Your task to perform on an android device: turn smart compose on in the gmail app Image 0: 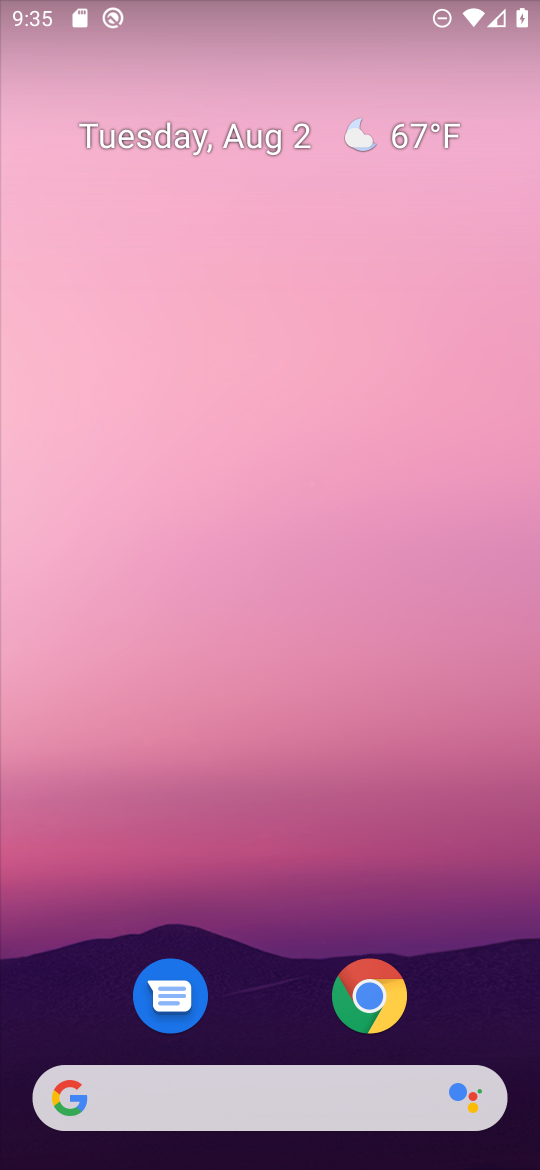
Step 0: press home button
Your task to perform on an android device: turn smart compose on in the gmail app Image 1: 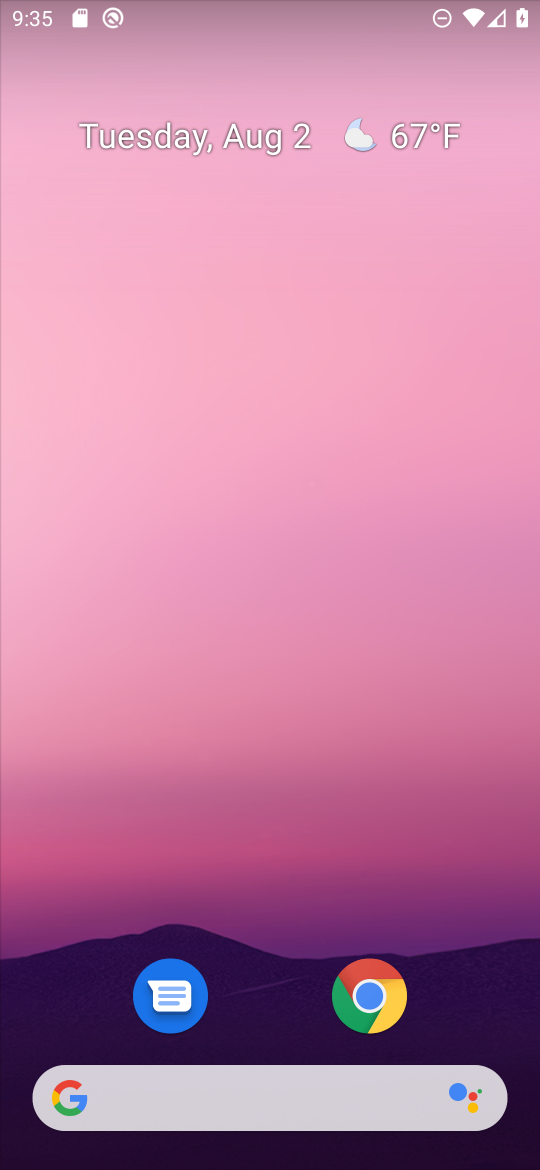
Step 1: drag from (287, 966) to (391, 25)
Your task to perform on an android device: turn smart compose on in the gmail app Image 2: 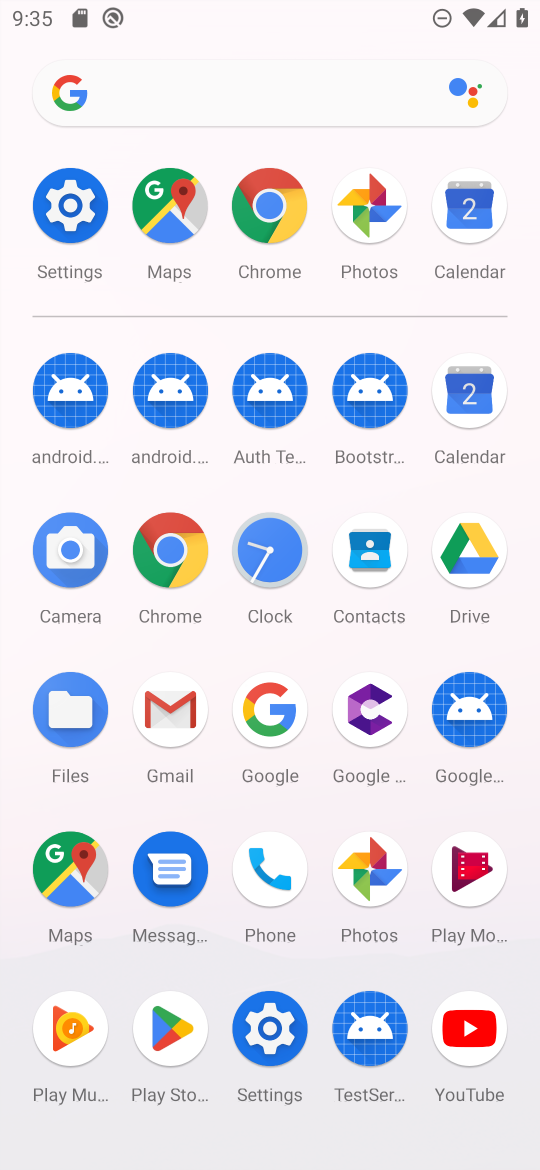
Step 2: click (159, 708)
Your task to perform on an android device: turn smart compose on in the gmail app Image 3: 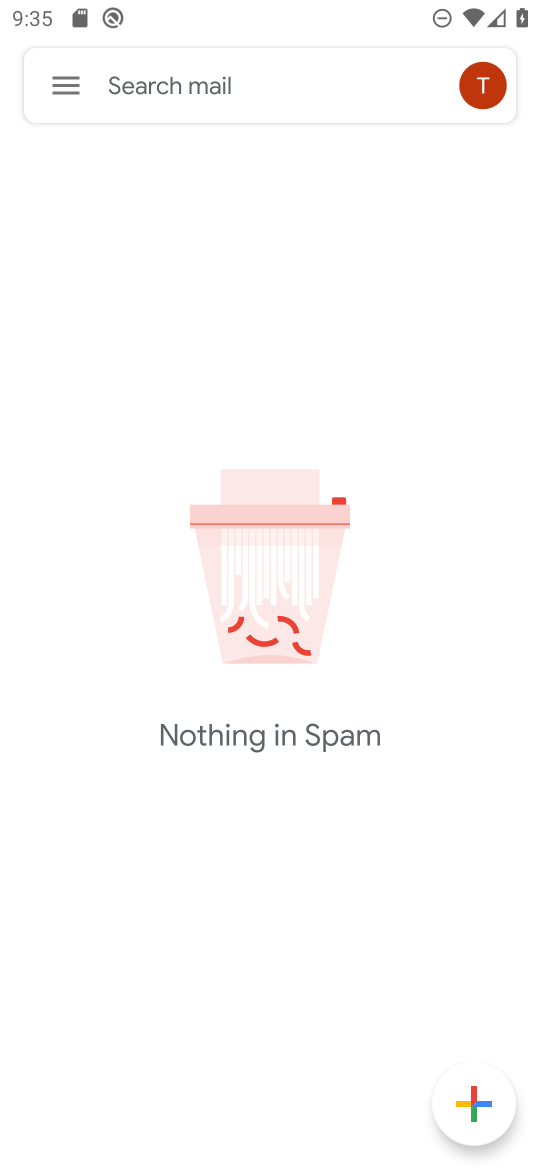
Step 3: click (74, 80)
Your task to perform on an android device: turn smart compose on in the gmail app Image 4: 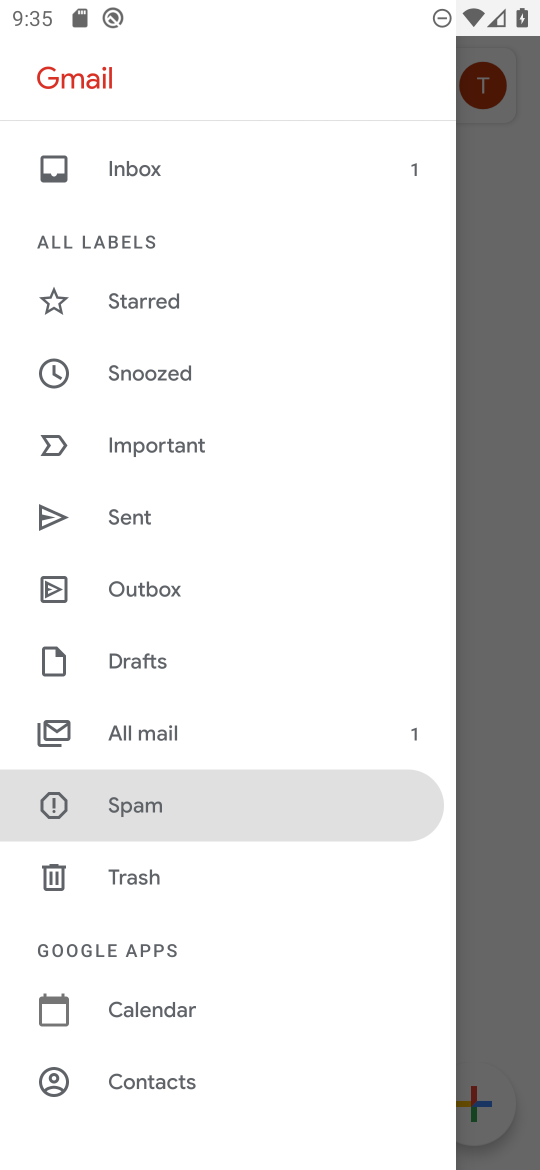
Step 4: drag from (187, 1016) to (225, 339)
Your task to perform on an android device: turn smart compose on in the gmail app Image 5: 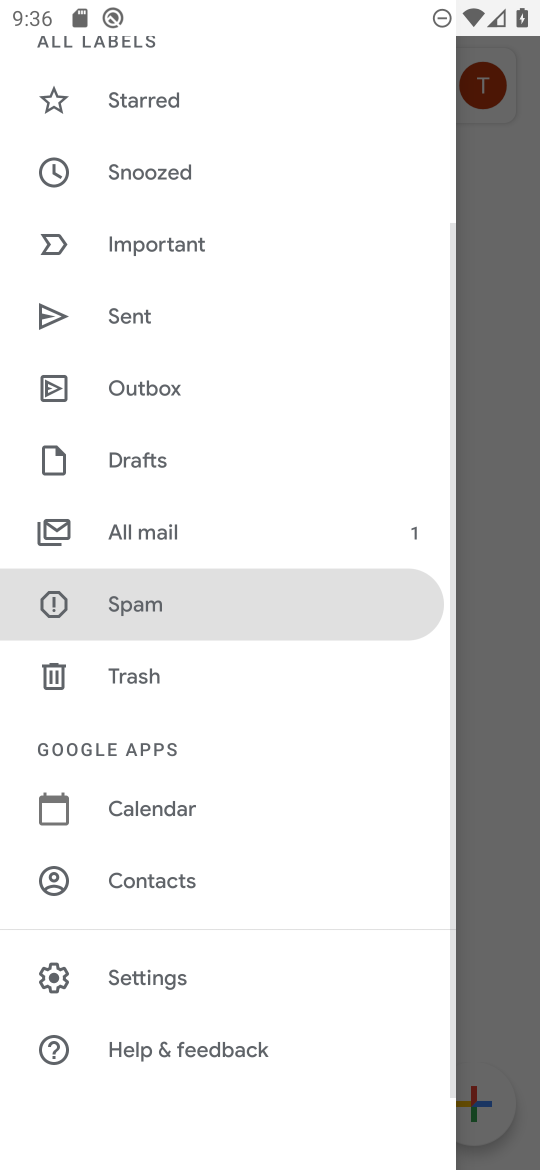
Step 5: click (148, 974)
Your task to perform on an android device: turn smart compose on in the gmail app Image 6: 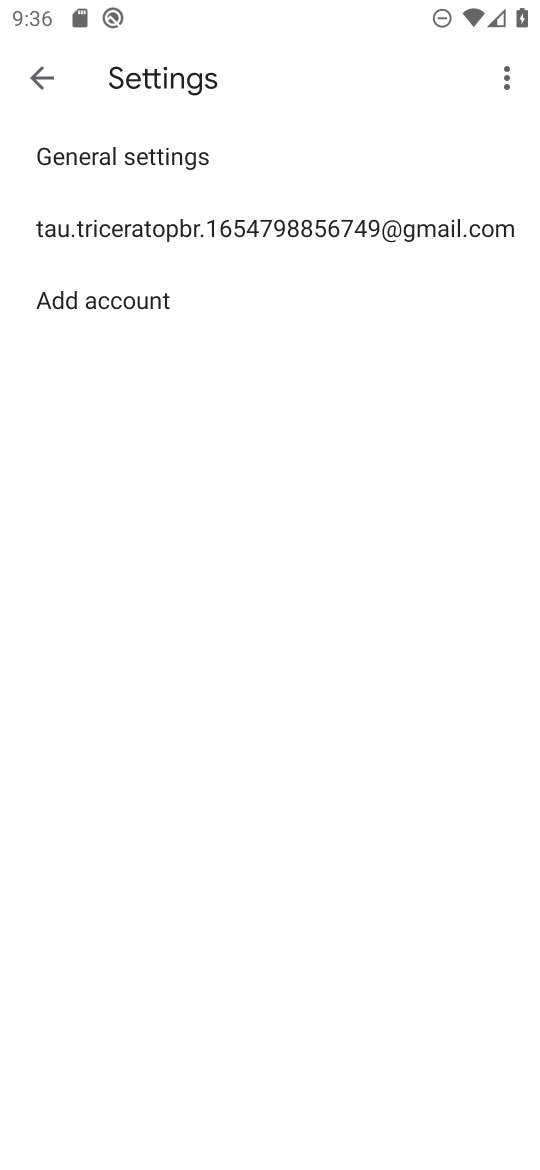
Step 6: click (119, 239)
Your task to perform on an android device: turn smart compose on in the gmail app Image 7: 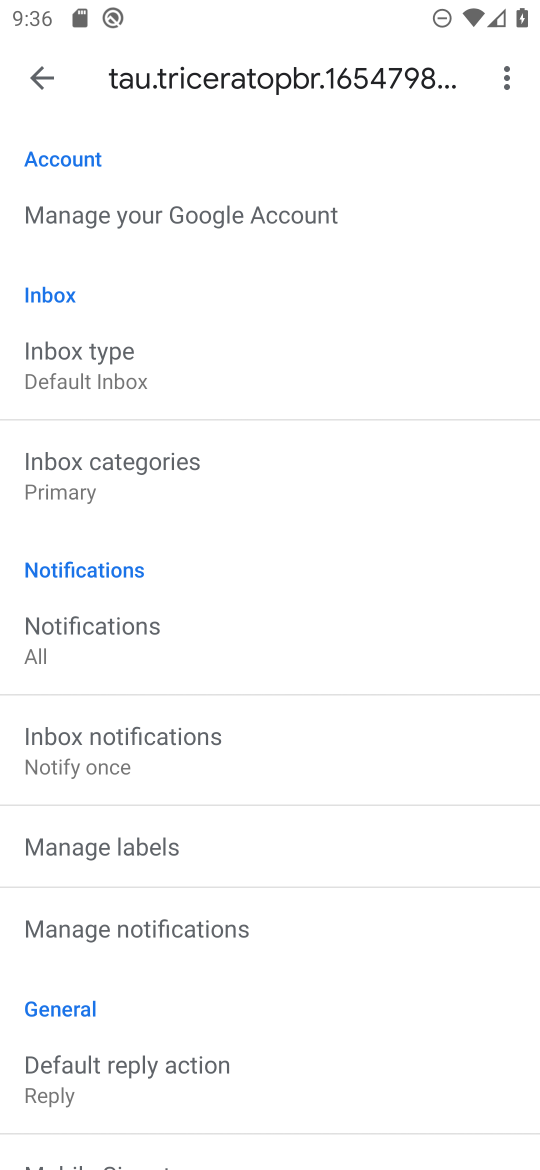
Step 7: task complete